Your task to perform on an android device: show emergency info Image 0: 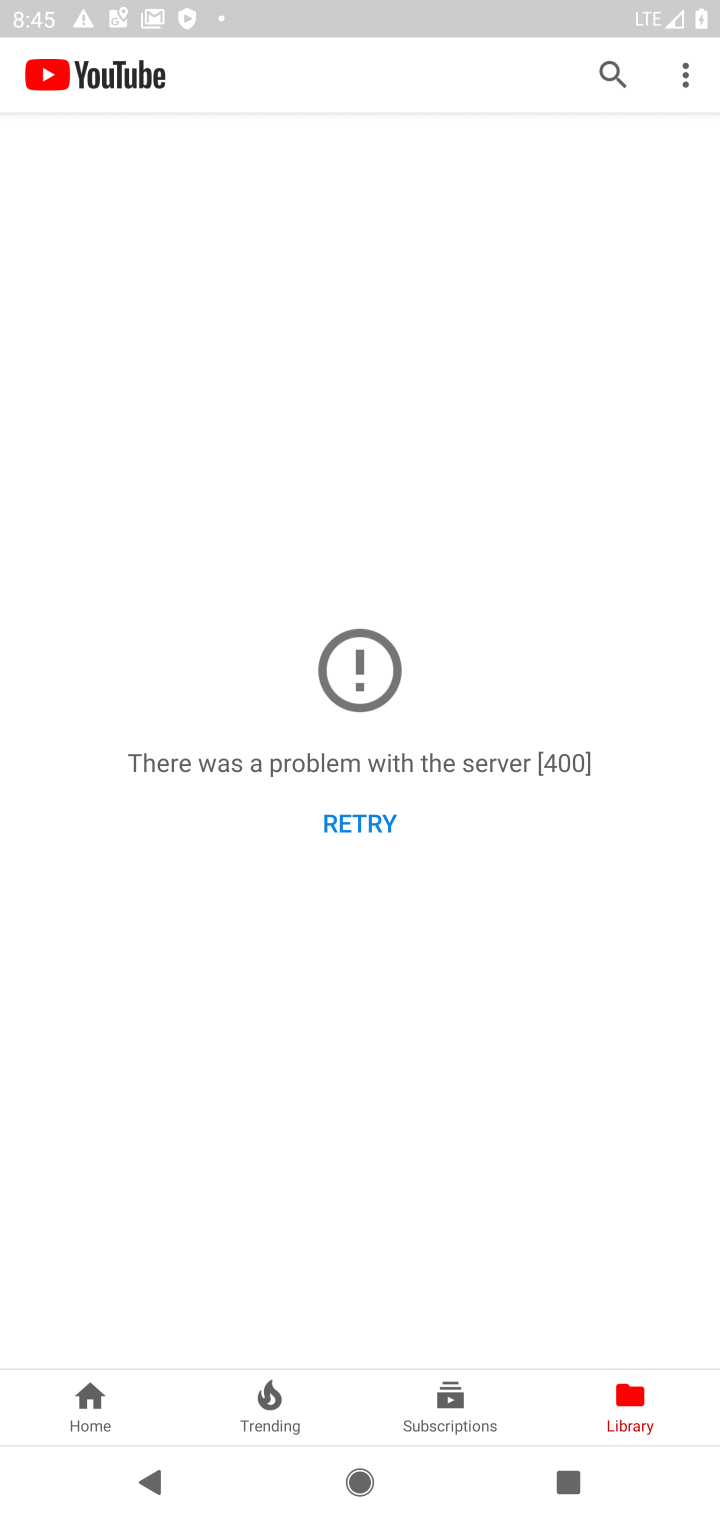
Step 0: press home button
Your task to perform on an android device: show emergency info Image 1: 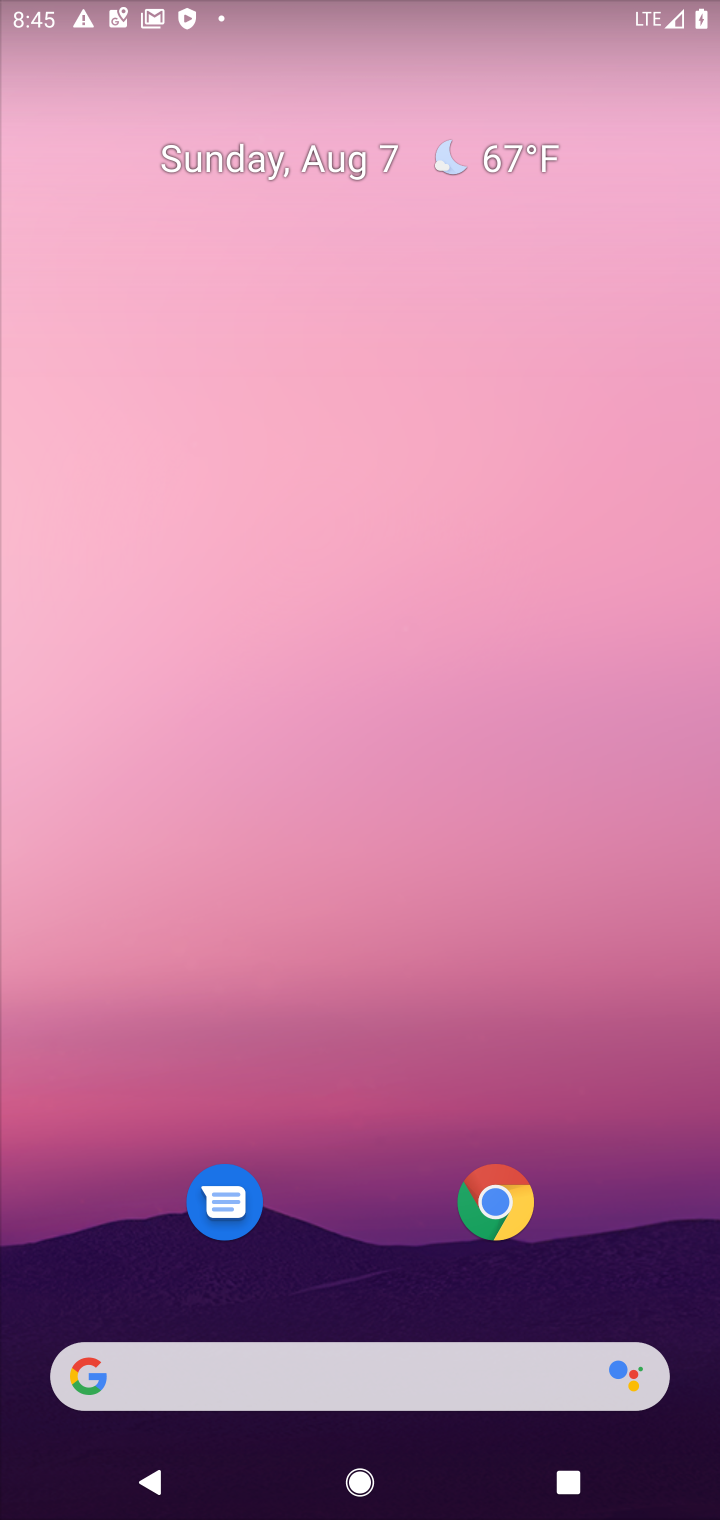
Step 1: drag from (330, 1273) to (339, 125)
Your task to perform on an android device: show emergency info Image 2: 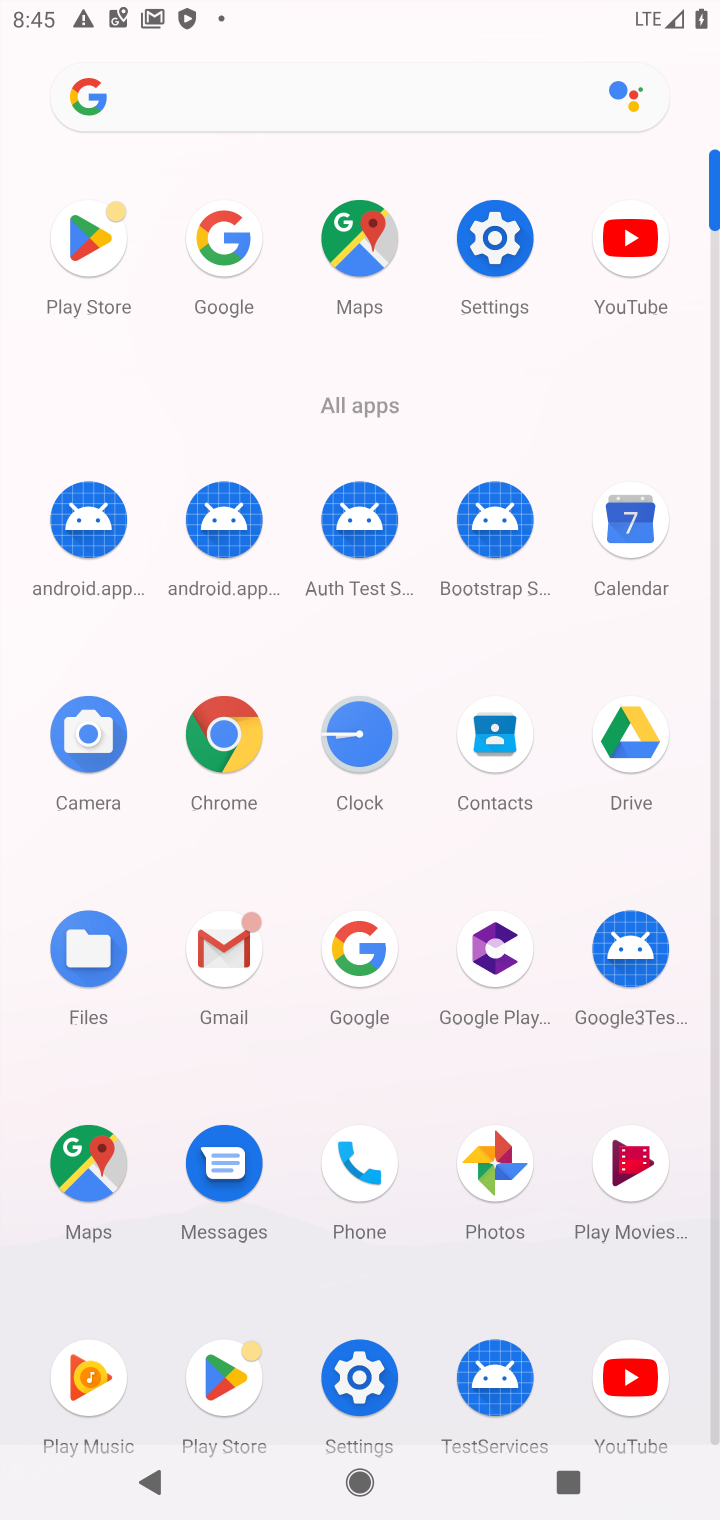
Step 2: click (488, 241)
Your task to perform on an android device: show emergency info Image 3: 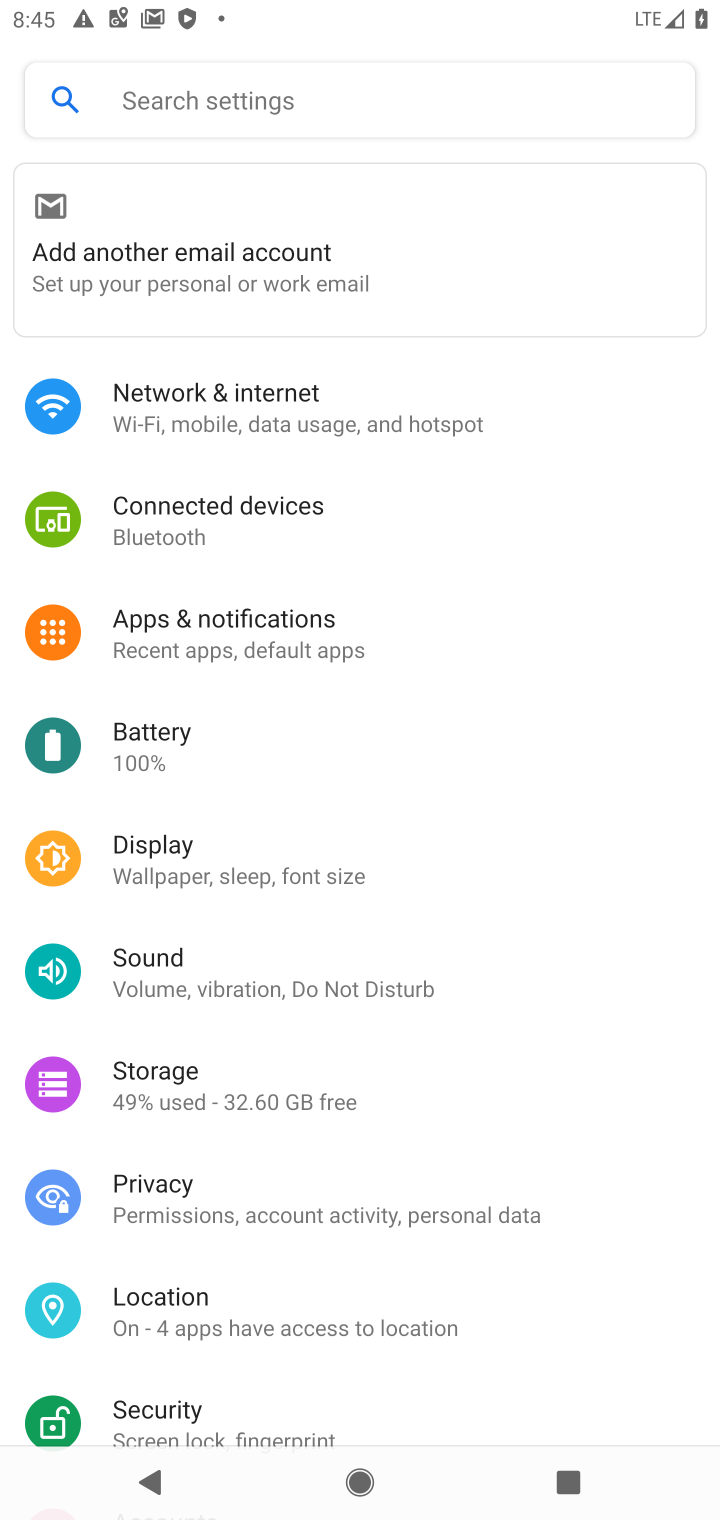
Step 3: drag from (244, 1007) to (272, 135)
Your task to perform on an android device: show emergency info Image 4: 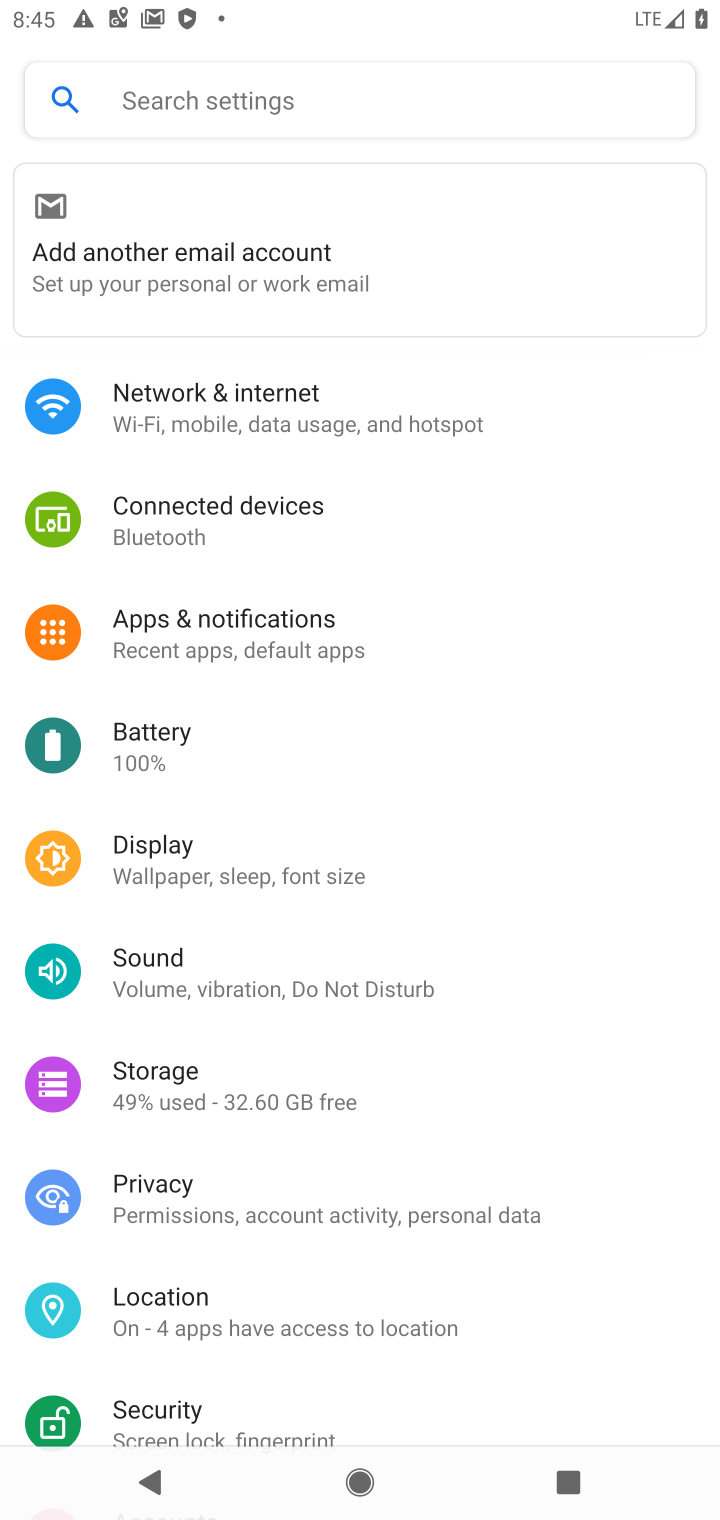
Step 4: drag from (287, 1105) to (289, 96)
Your task to perform on an android device: show emergency info Image 5: 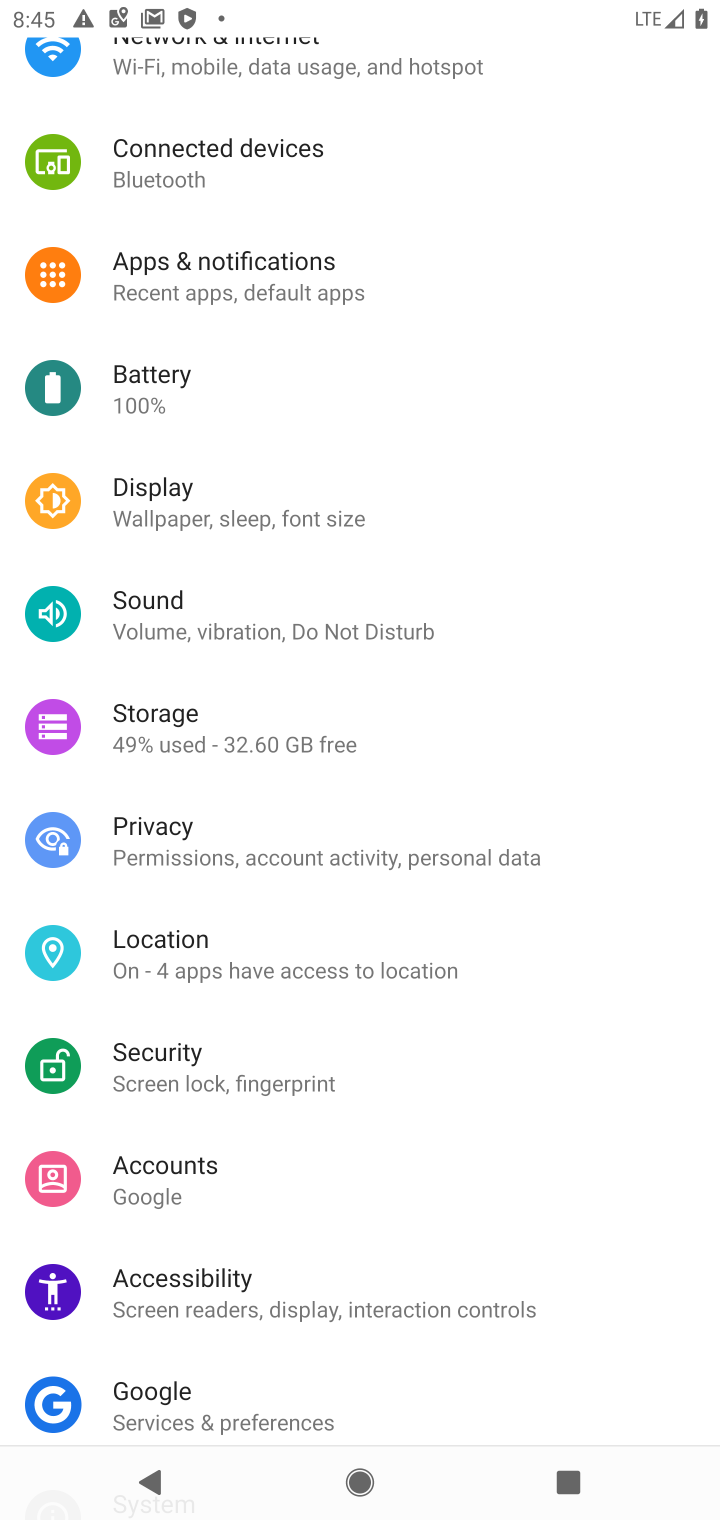
Step 5: drag from (222, 1088) to (221, 290)
Your task to perform on an android device: show emergency info Image 6: 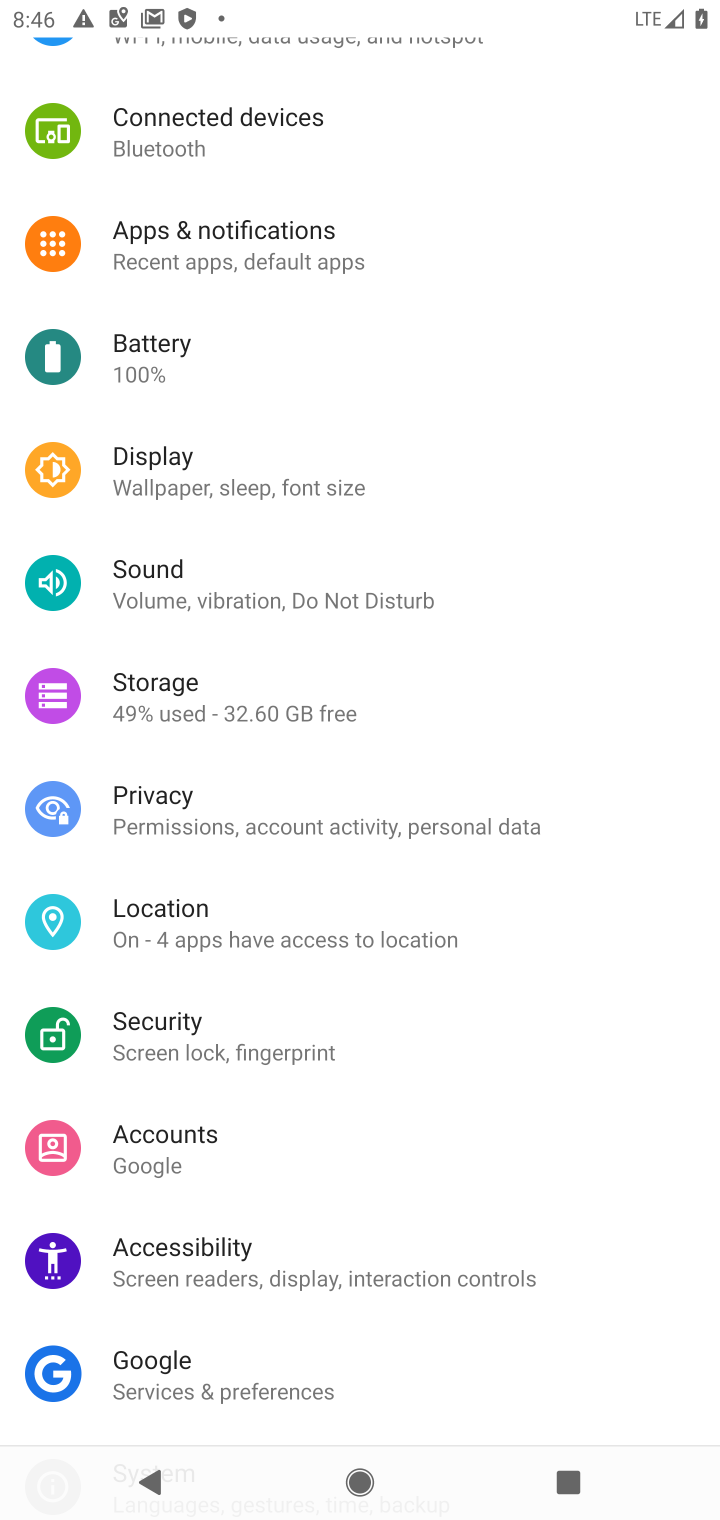
Step 6: drag from (263, 1128) to (232, 251)
Your task to perform on an android device: show emergency info Image 7: 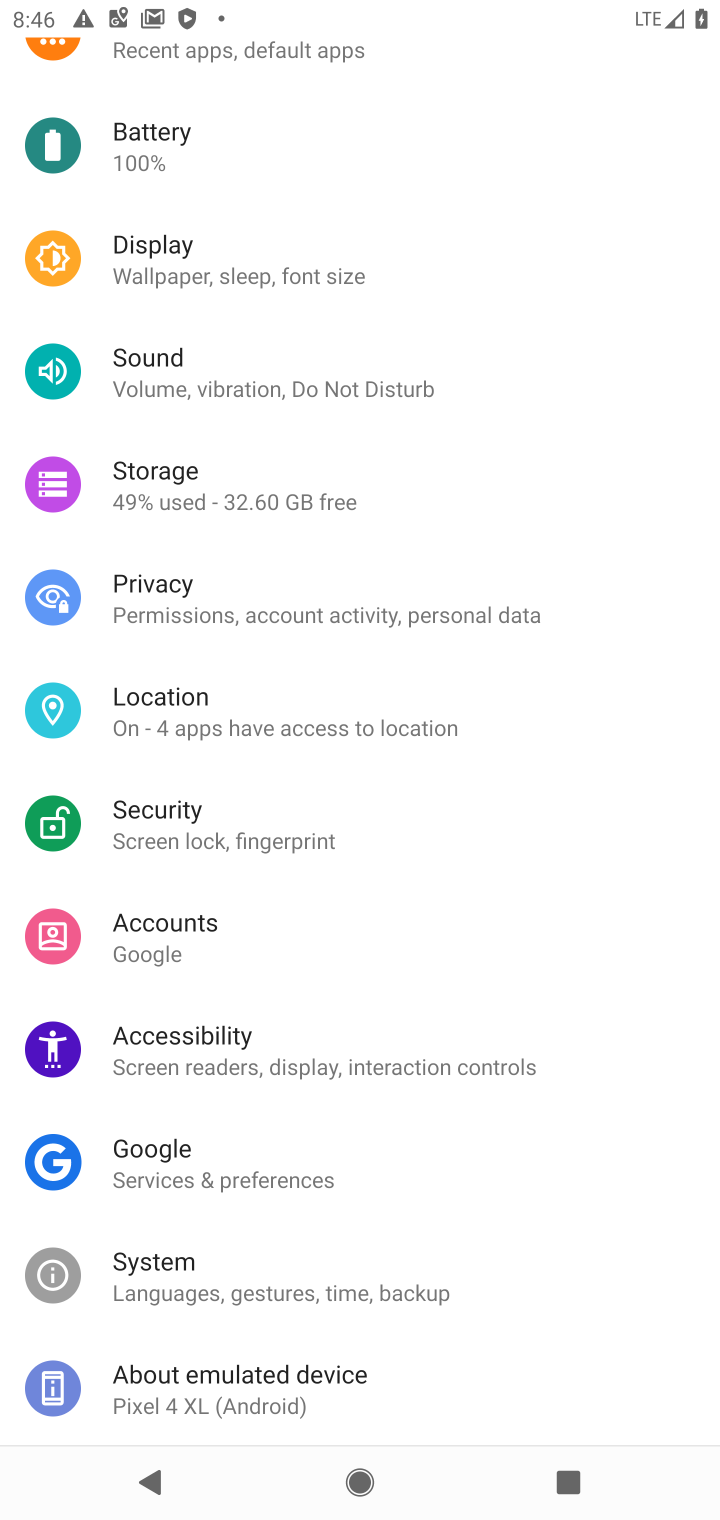
Step 7: click (224, 1391)
Your task to perform on an android device: show emergency info Image 8: 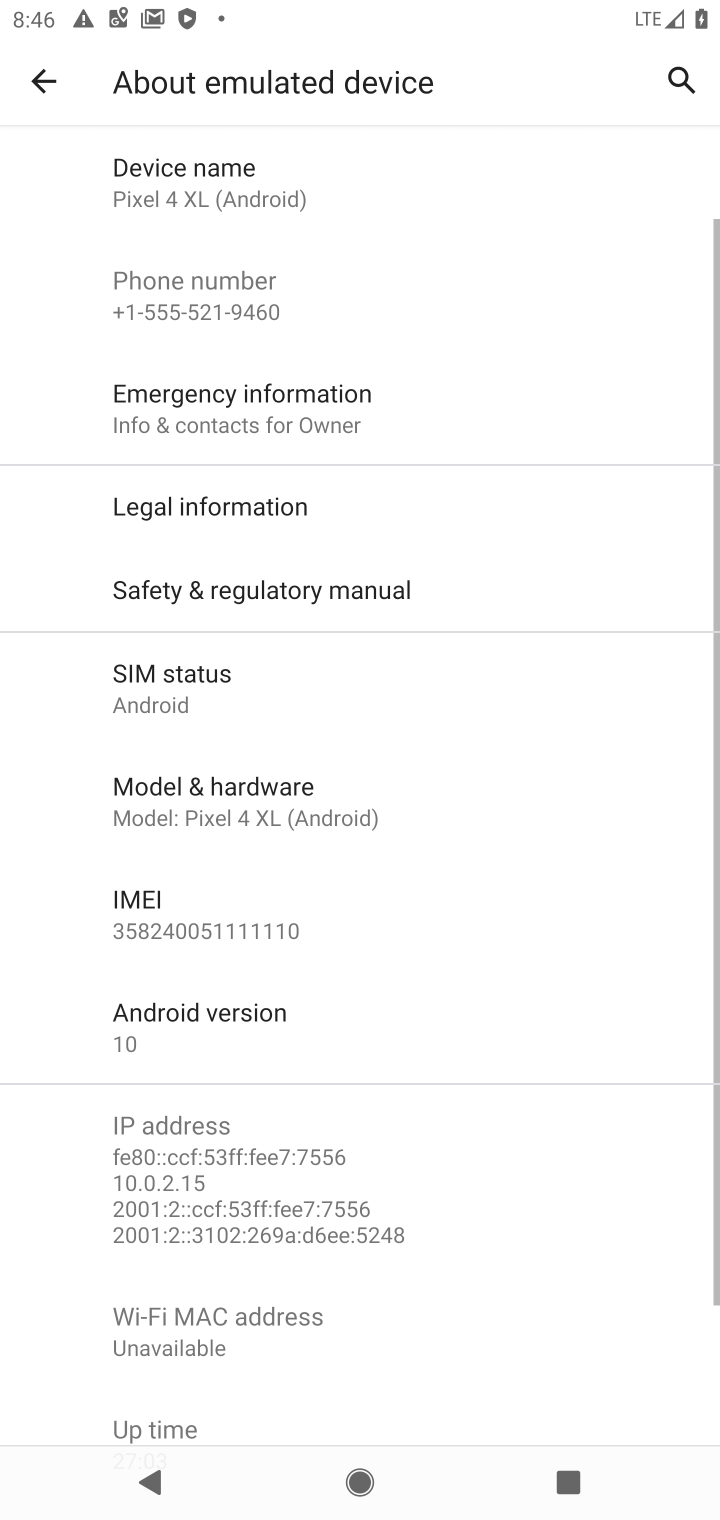
Step 8: click (260, 388)
Your task to perform on an android device: show emergency info Image 9: 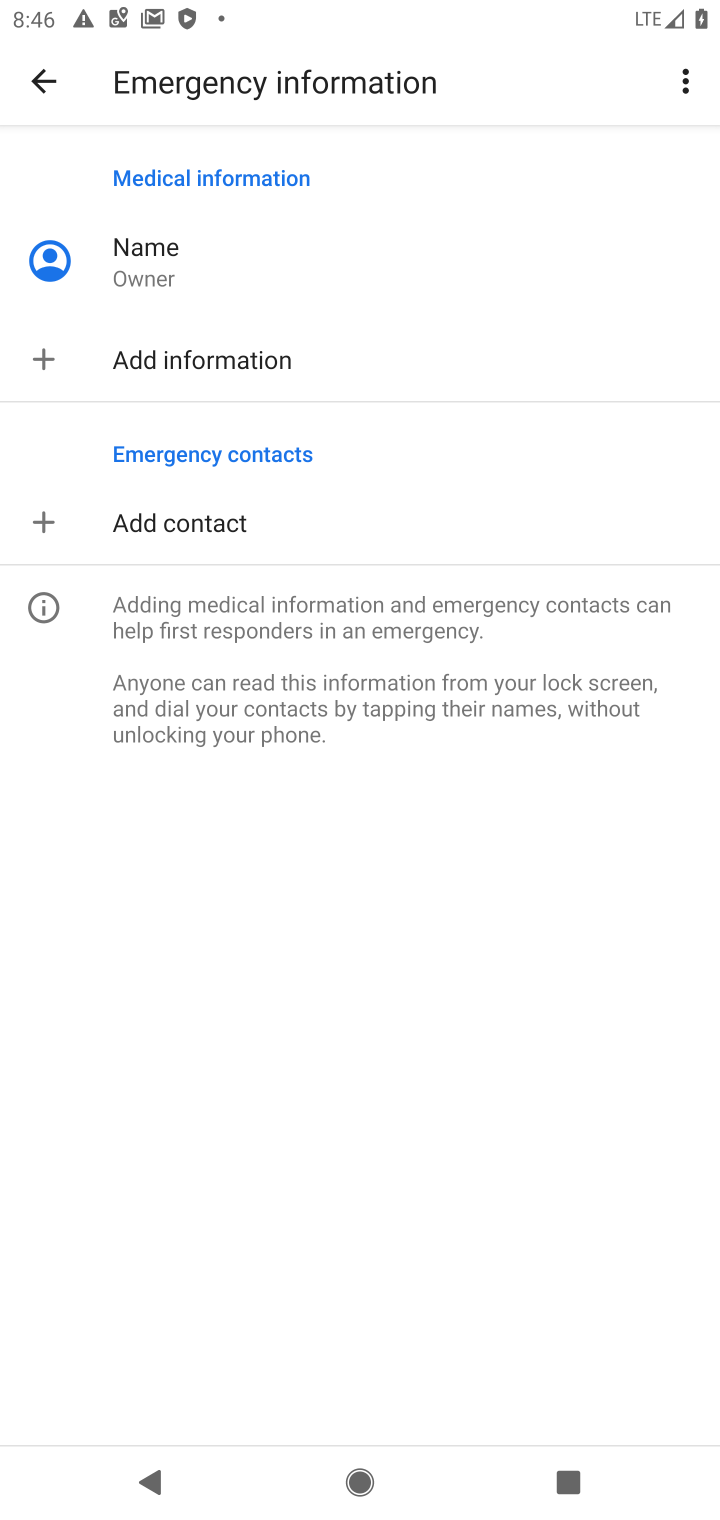
Step 9: task complete